Your task to perform on an android device: turn off location Image 0: 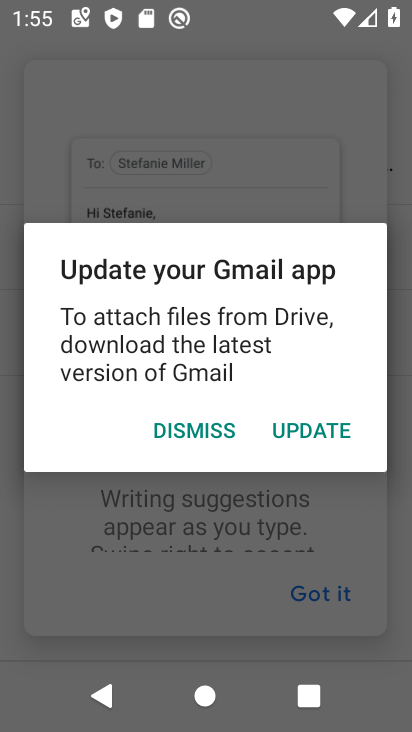
Step 0: press home button
Your task to perform on an android device: turn off location Image 1: 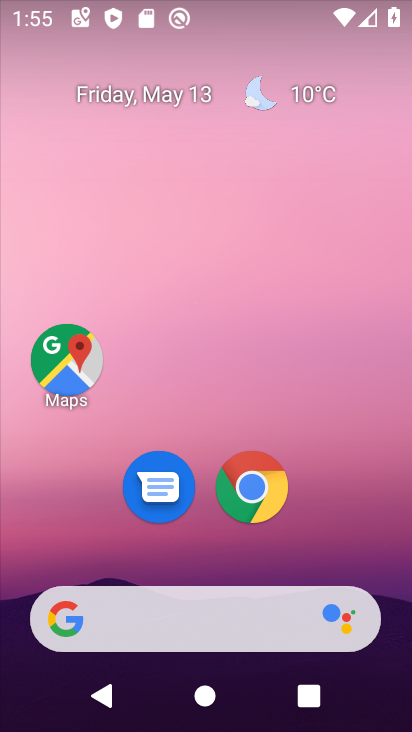
Step 1: drag from (193, 435) to (226, 286)
Your task to perform on an android device: turn off location Image 2: 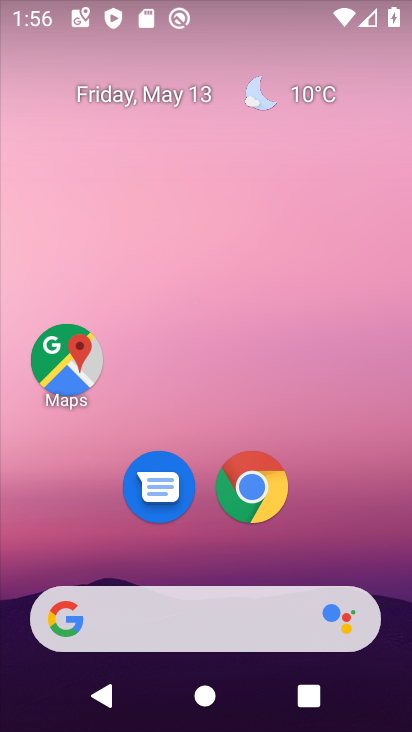
Step 2: drag from (234, 541) to (307, 158)
Your task to perform on an android device: turn off location Image 3: 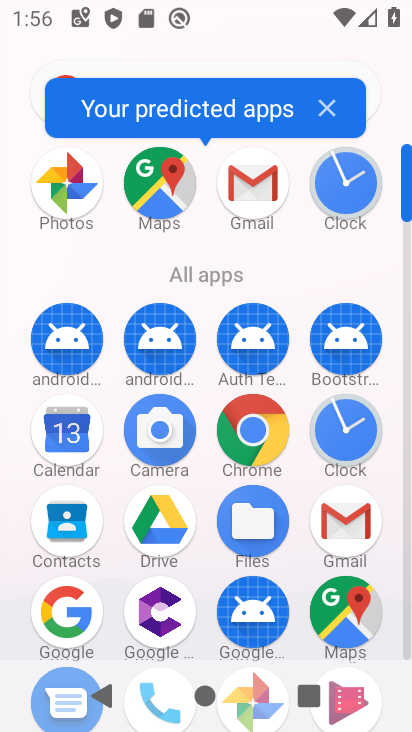
Step 3: drag from (205, 578) to (269, 183)
Your task to perform on an android device: turn off location Image 4: 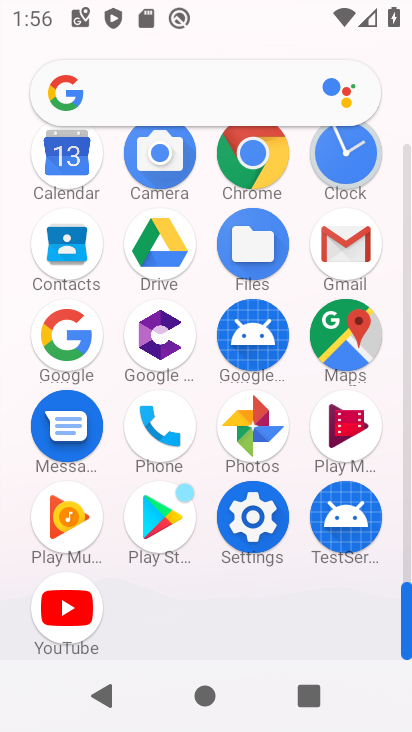
Step 4: click (248, 511)
Your task to perform on an android device: turn off location Image 5: 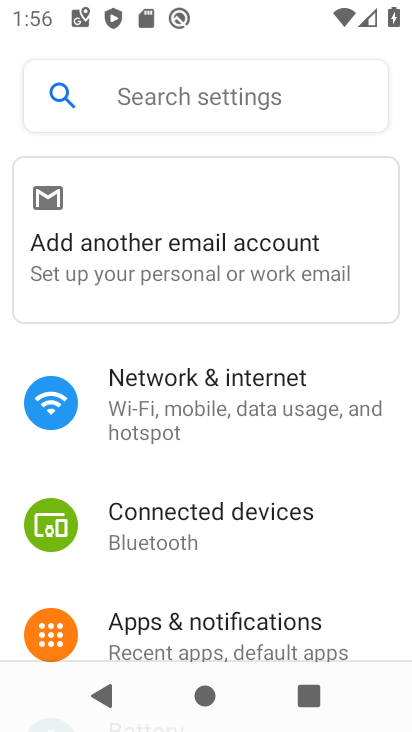
Step 5: drag from (258, 551) to (275, 281)
Your task to perform on an android device: turn off location Image 6: 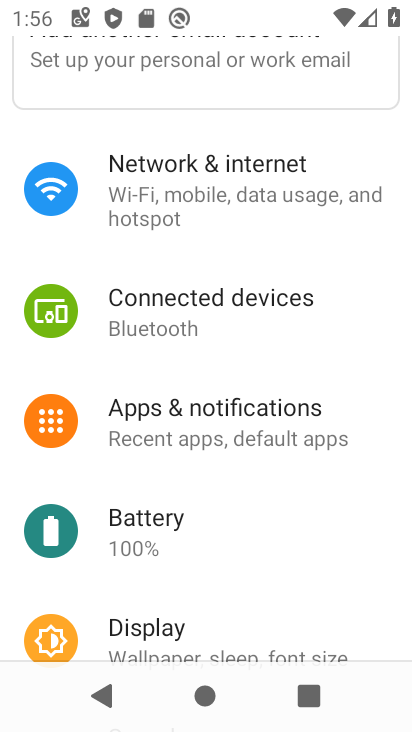
Step 6: drag from (212, 568) to (252, 180)
Your task to perform on an android device: turn off location Image 7: 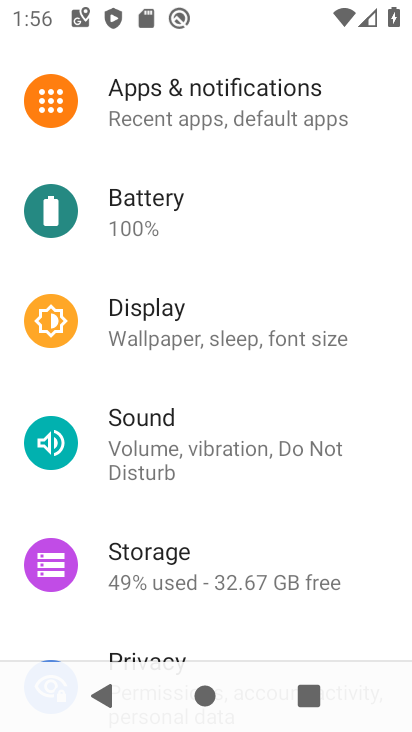
Step 7: drag from (208, 592) to (243, 325)
Your task to perform on an android device: turn off location Image 8: 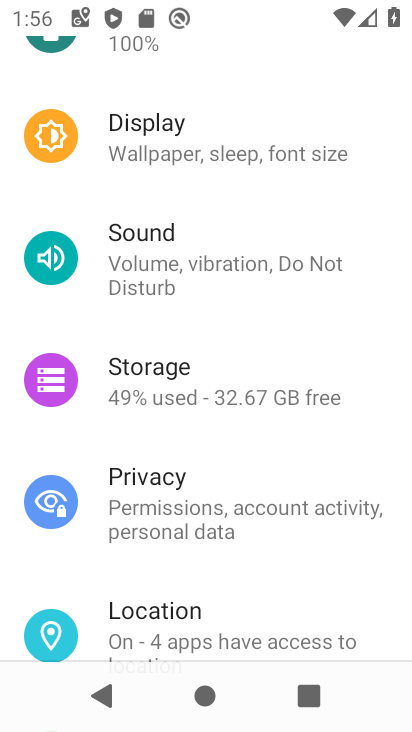
Step 8: click (173, 625)
Your task to perform on an android device: turn off location Image 9: 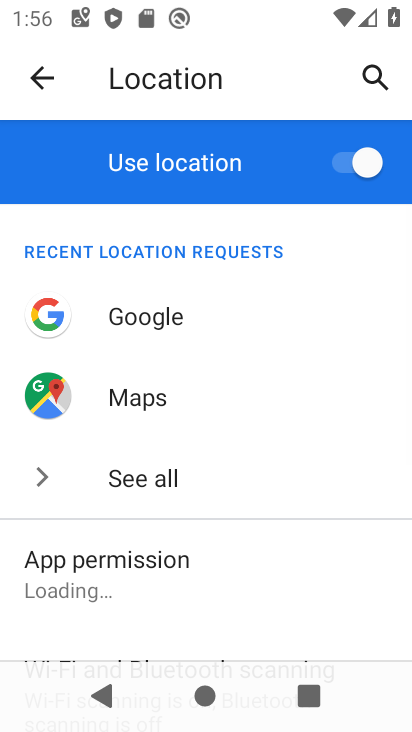
Step 9: click (340, 170)
Your task to perform on an android device: turn off location Image 10: 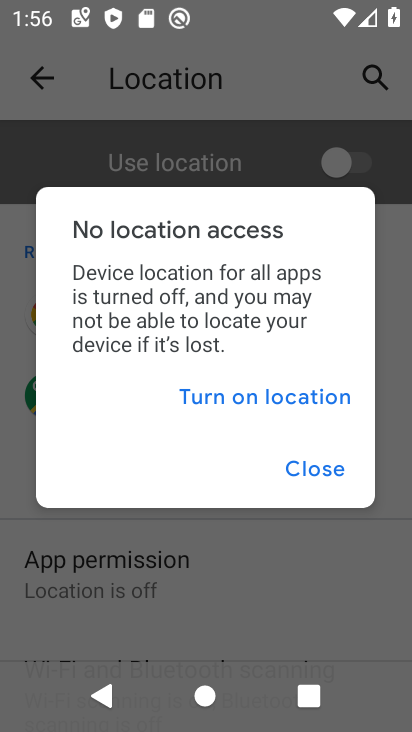
Step 10: task complete